Your task to perform on an android device: Open Google Chrome Image 0: 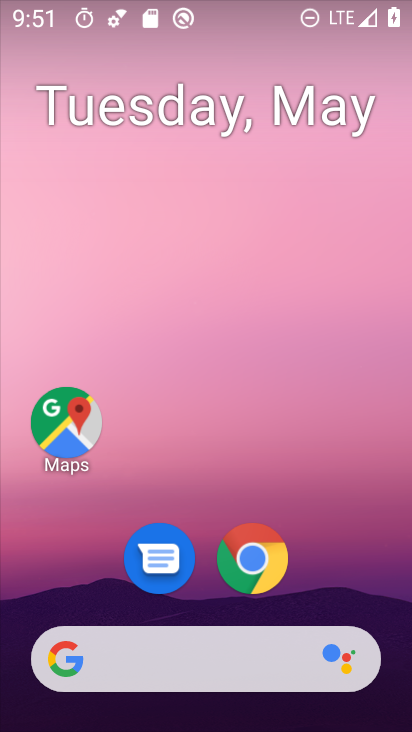
Step 0: drag from (390, 647) to (333, 53)
Your task to perform on an android device: Open Google Chrome Image 1: 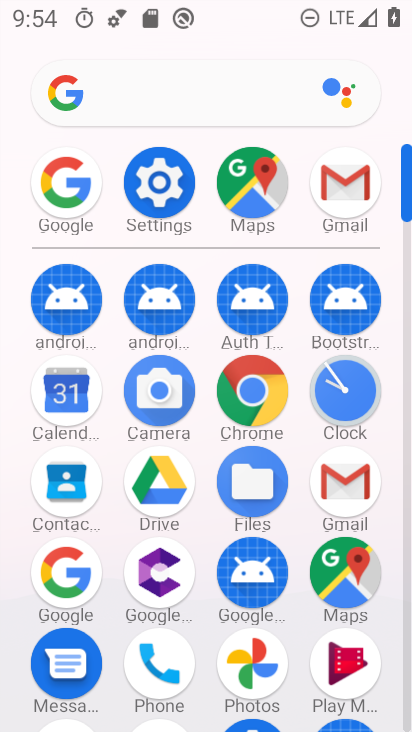
Step 1: click (257, 405)
Your task to perform on an android device: Open Google Chrome Image 2: 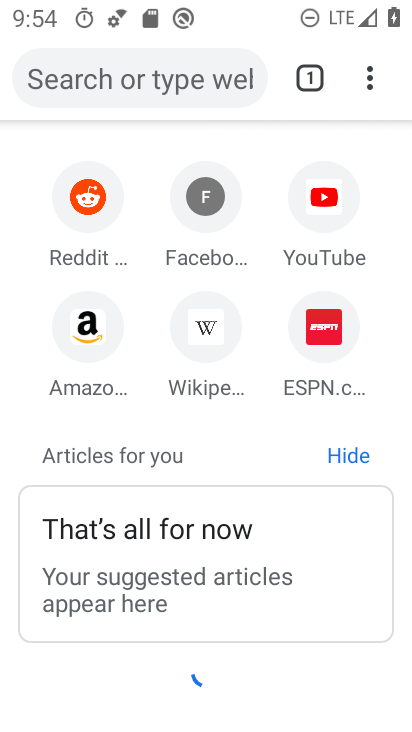
Step 2: task complete